Your task to perform on an android device: Go to wifi settings Image 0: 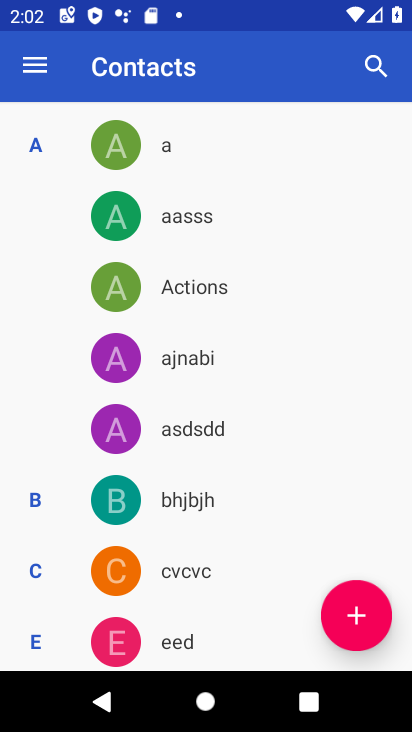
Step 0: press home button
Your task to perform on an android device: Go to wifi settings Image 1: 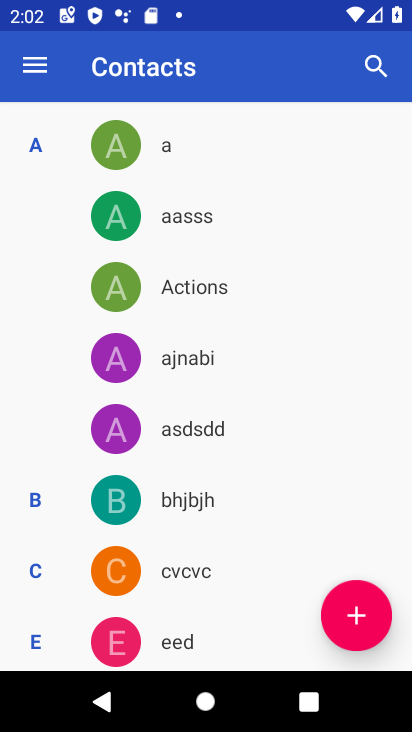
Step 1: press home button
Your task to perform on an android device: Go to wifi settings Image 2: 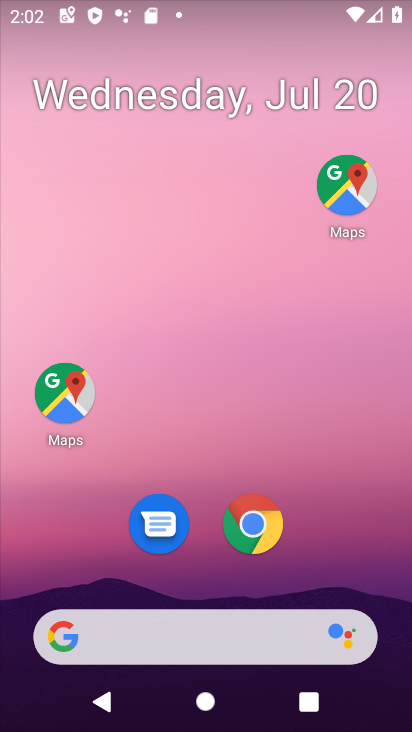
Step 2: drag from (202, 453) to (245, 9)
Your task to perform on an android device: Go to wifi settings Image 3: 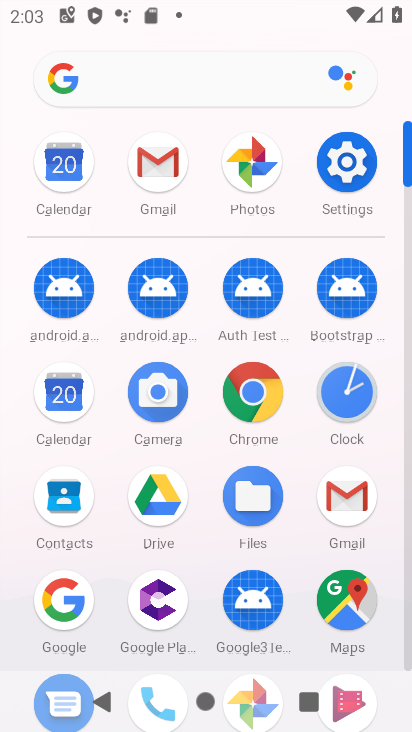
Step 3: click (352, 161)
Your task to perform on an android device: Go to wifi settings Image 4: 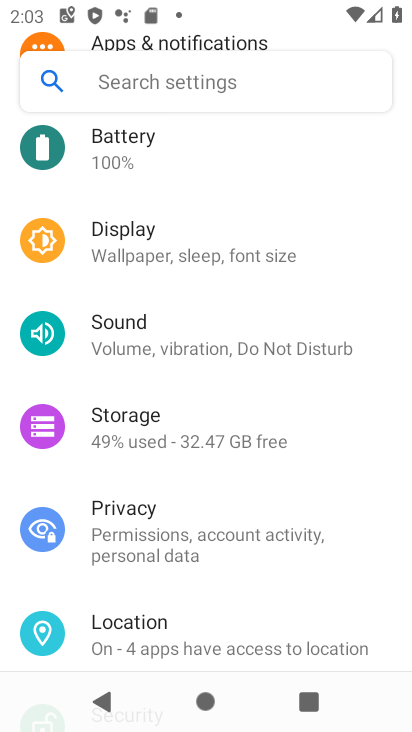
Step 4: drag from (215, 220) to (196, 595)
Your task to perform on an android device: Go to wifi settings Image 5: 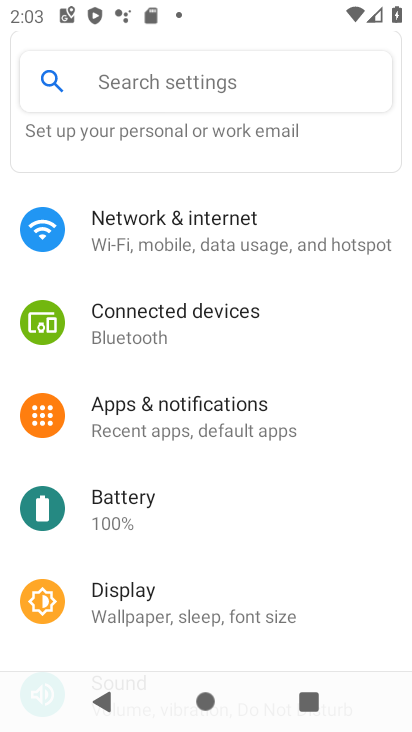
Step 5: click (278, 229)
Your task to perform on an android device: Go to wifi settings Image 6: 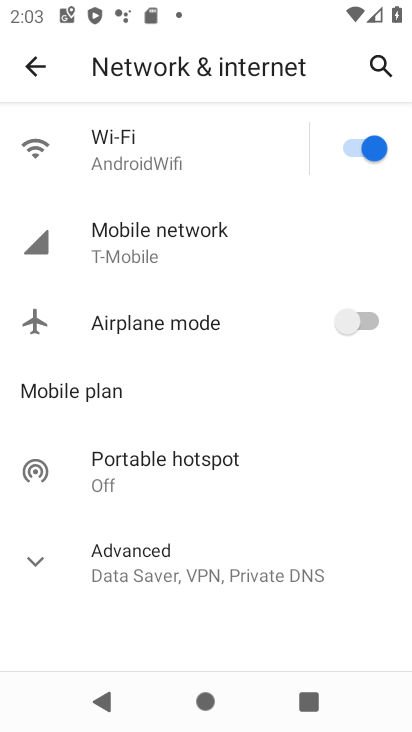
Step 6: click (154, 145)
Your task to perform on an android device: Go to wifi settings Image 7: 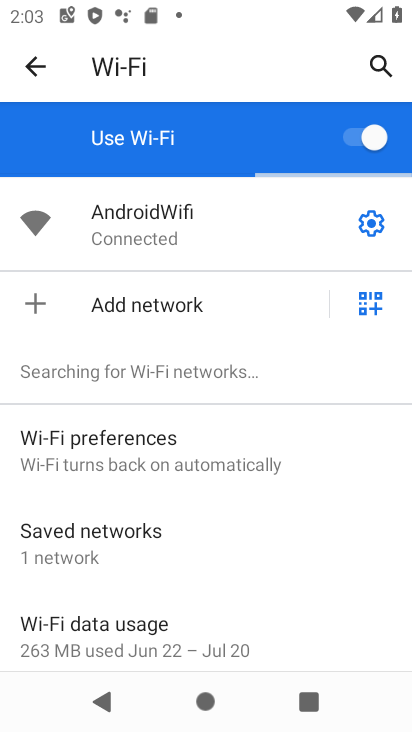
Step 7: task complete